Your task to perform on an android device: When is my next appointment? Image 0: 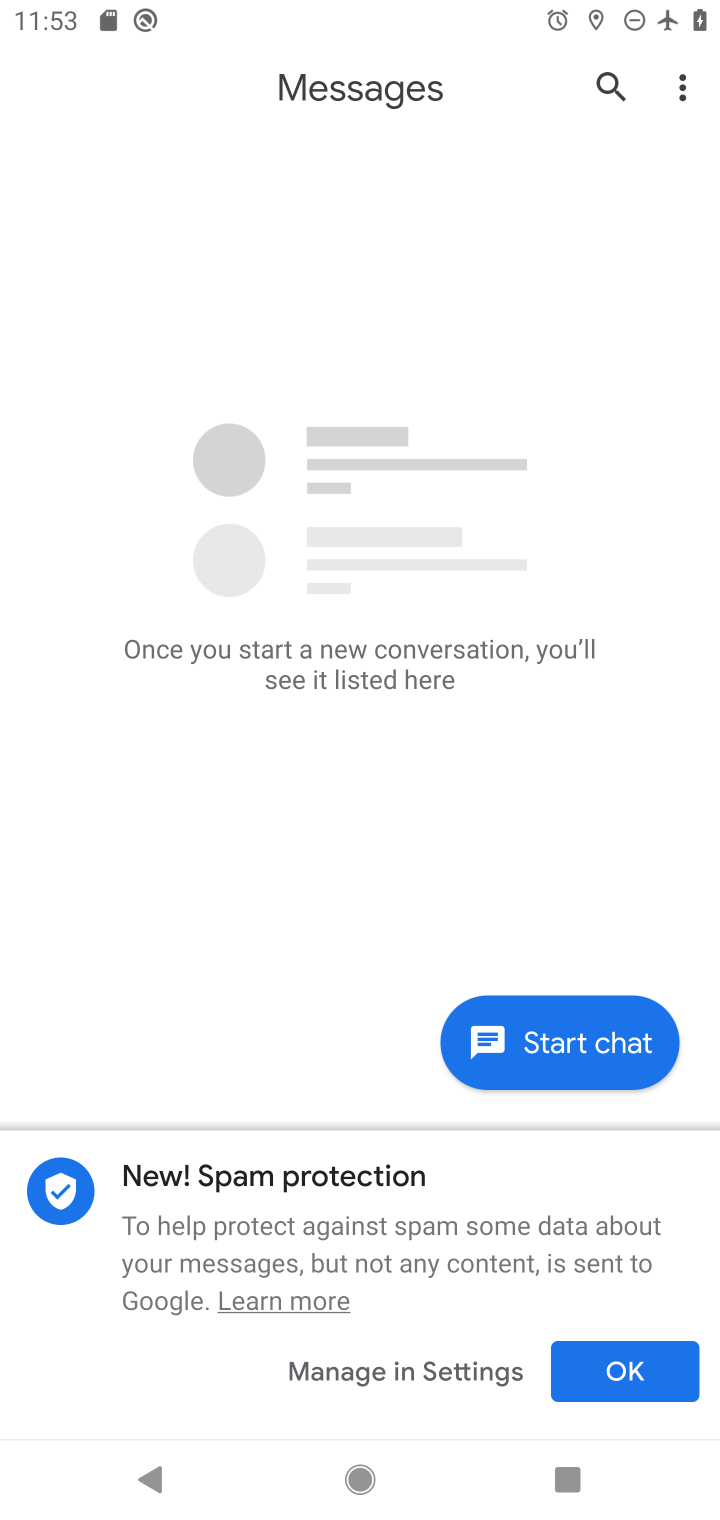
Step 0: press back button
Your task to perform on an android device: When is my next appointment? Image 1: 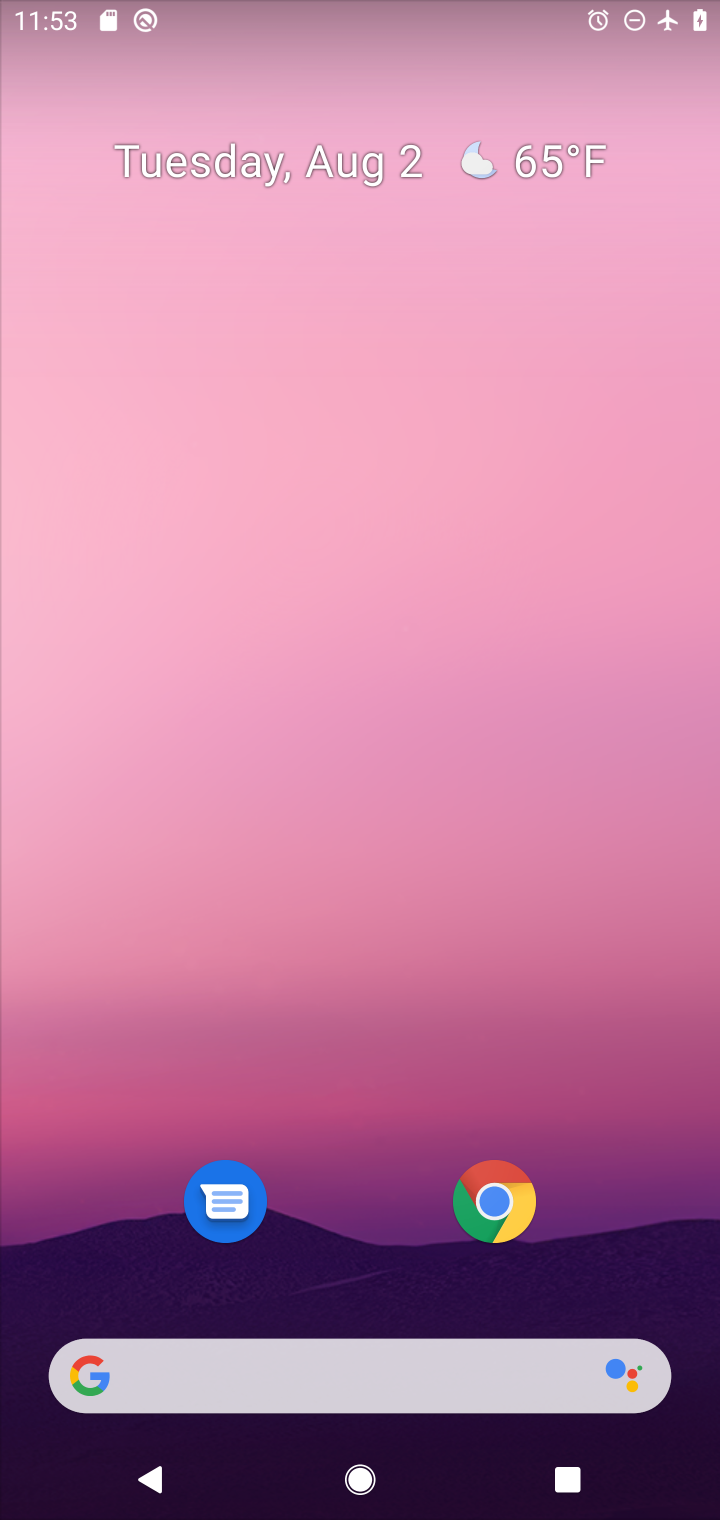
Step 1: drag from (340, 1264) to (172, 130)
Your task to perform on an android device: When is my next appointment? Image 2: 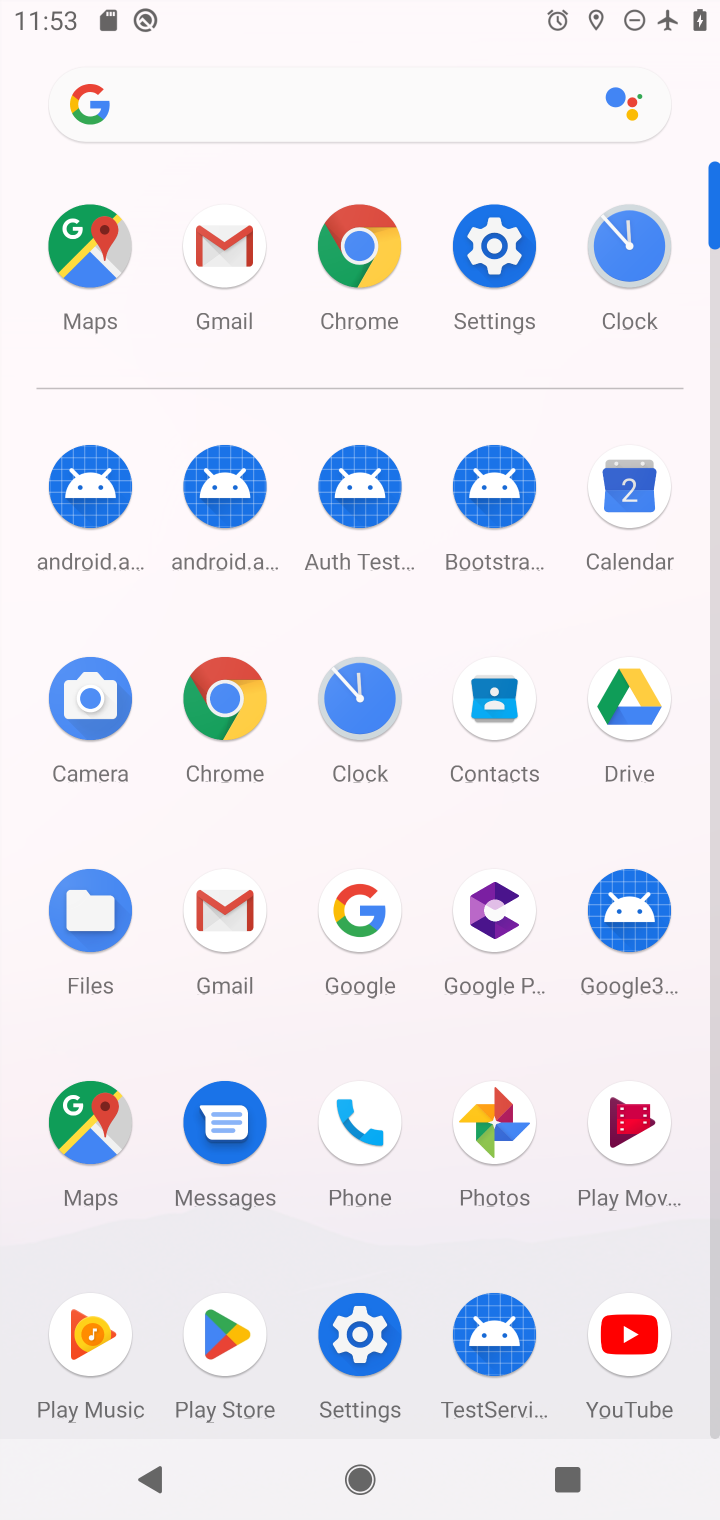
Step 2: click (616, 507)
Your task to perform on an android device: When is my next appointment? Image 3: 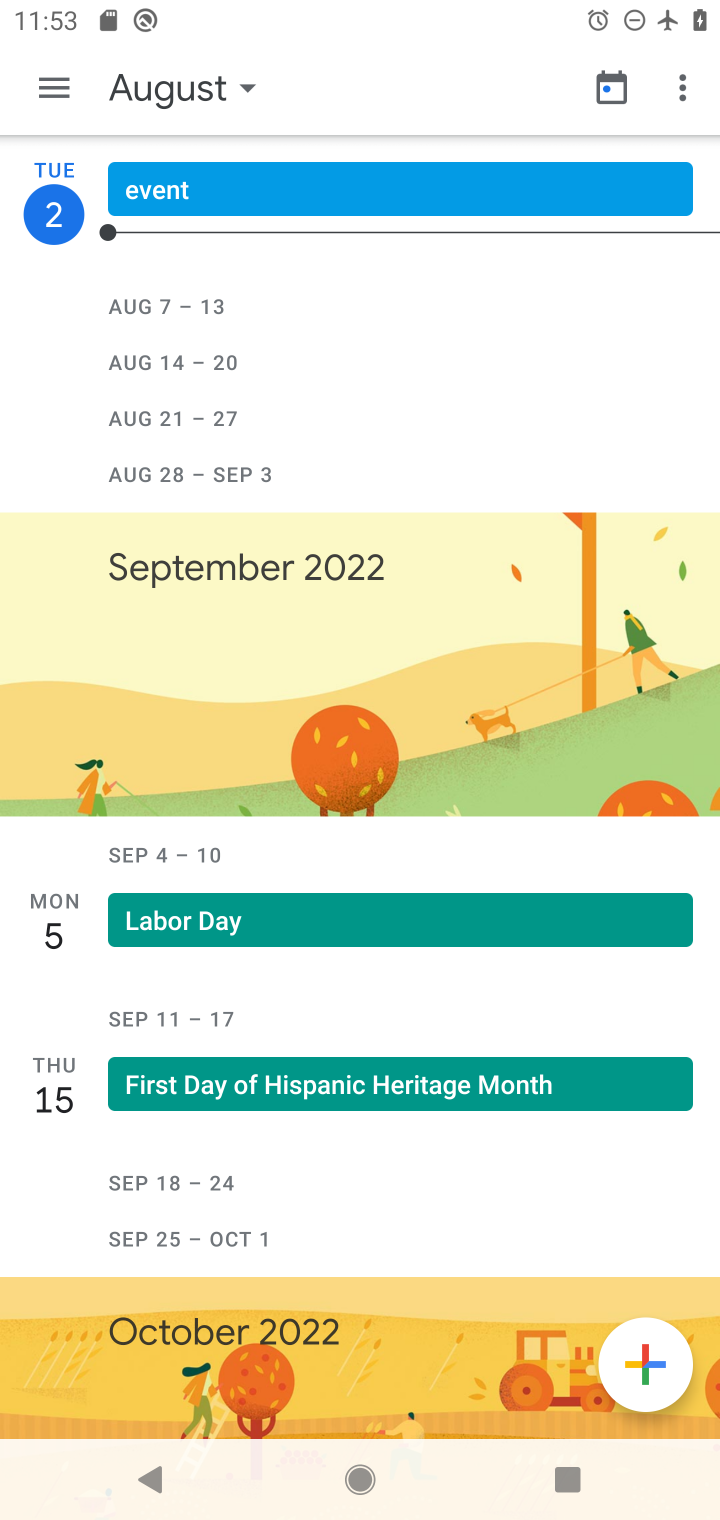
Step 3: click (58, 95)
Your task to perform on an android device: When is my next appointment? Image 4: 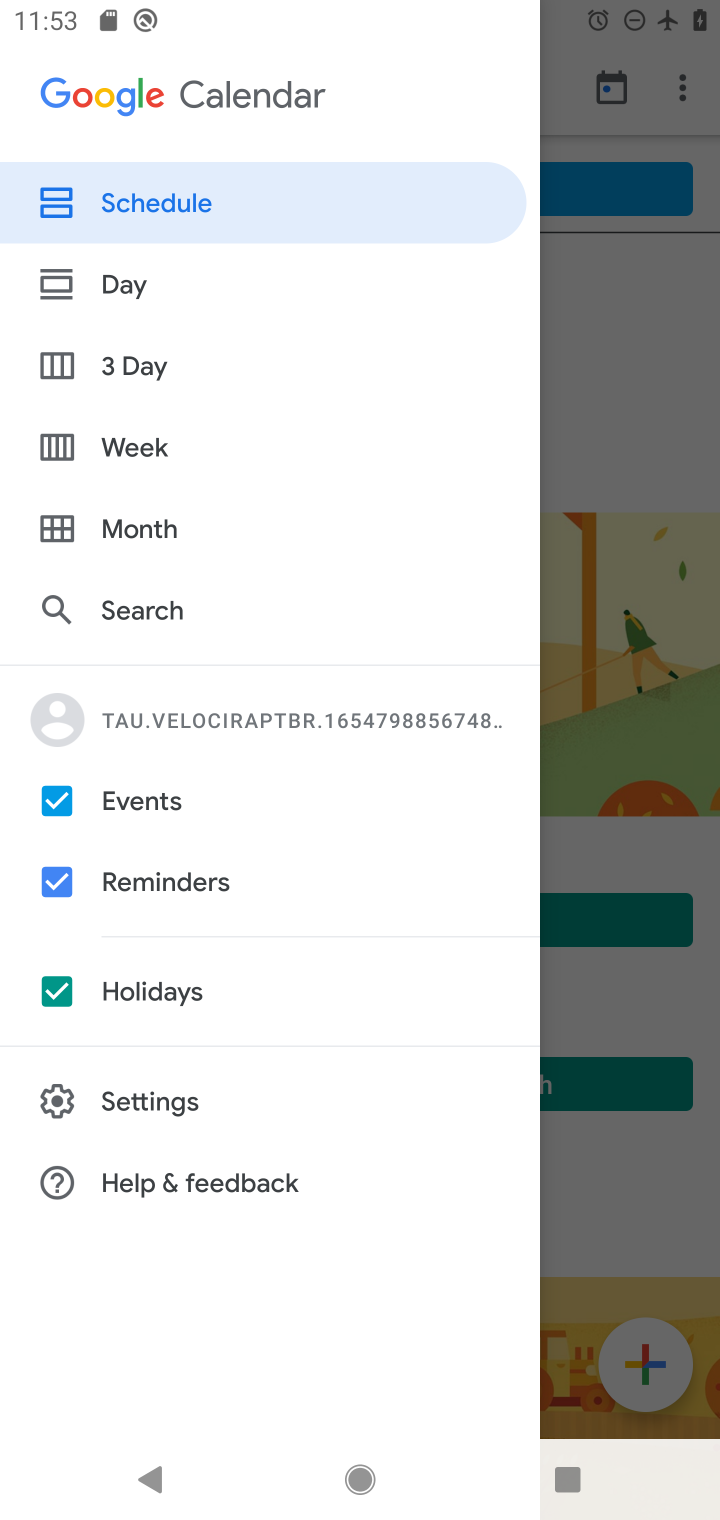
Step 4: click (169, 455)
Your task to perform on an android device: When is my next appointment? Image 5: 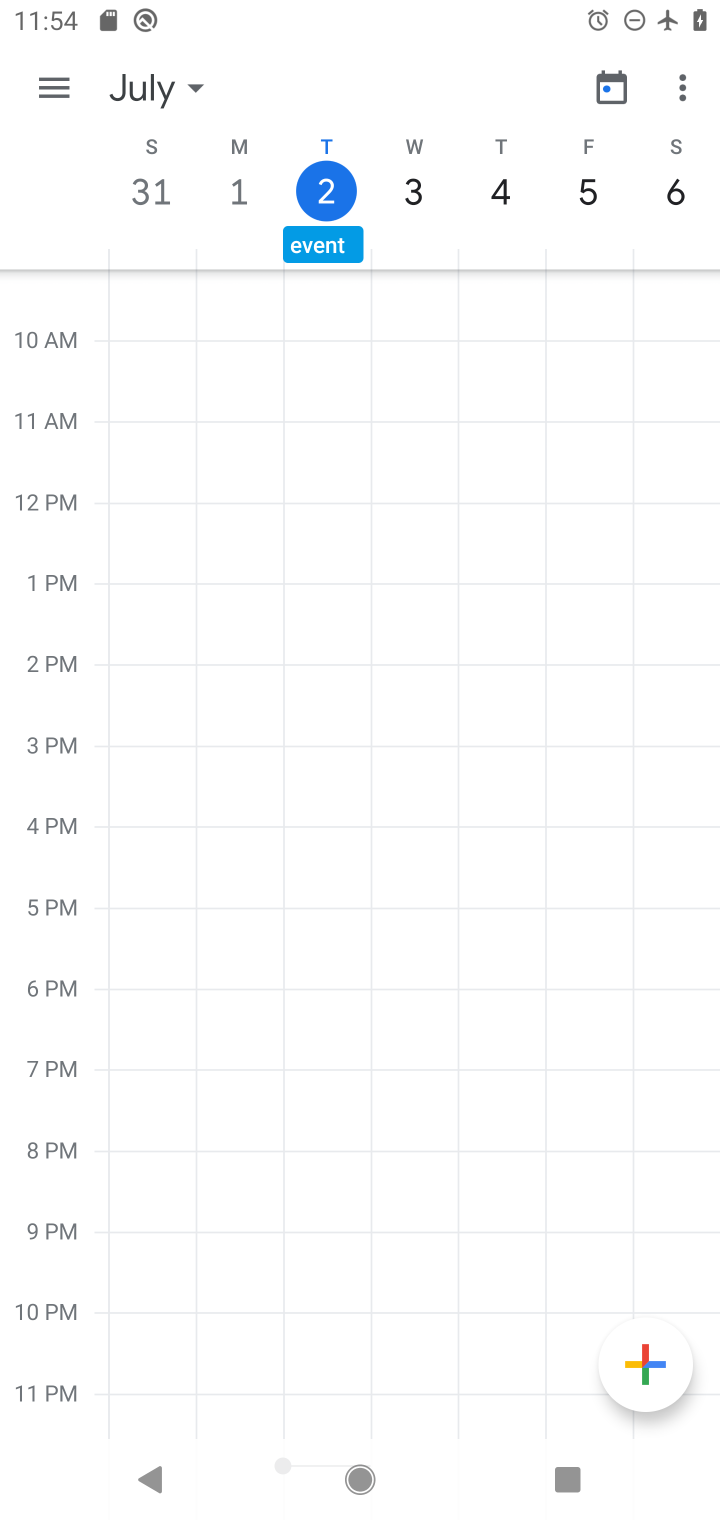
Step 5: task complete